Your task to perform on an android device: open chrome privacy settings Image 0: 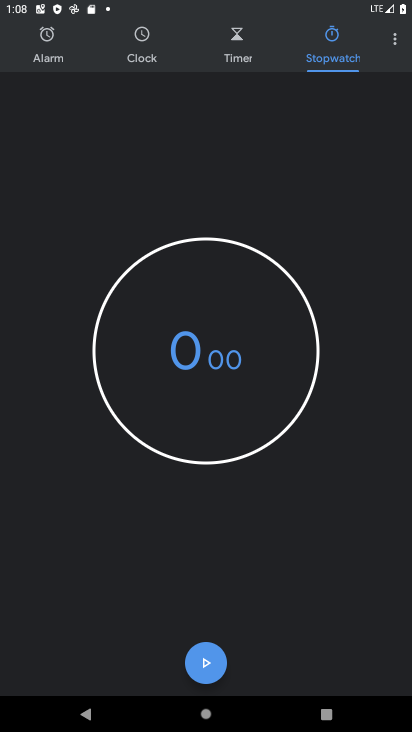
Step 0: press home button
Your task to perform on an android device: open chrome privacy settings Image 1: 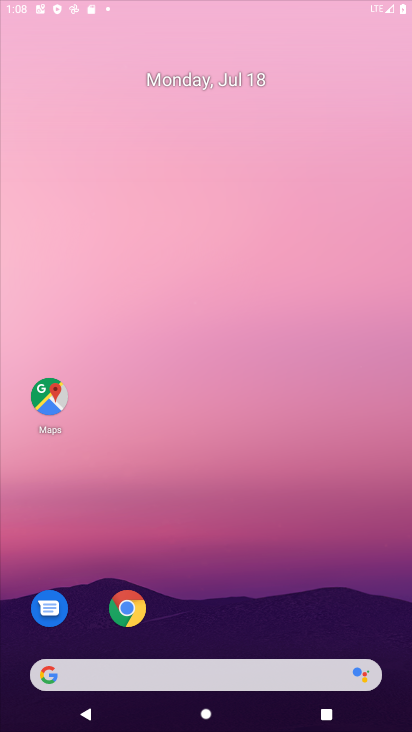
Step 1: drag from (365, 668) to (204, 58)
Your task to perform on an android device: open chrome privacy settings Image 2: 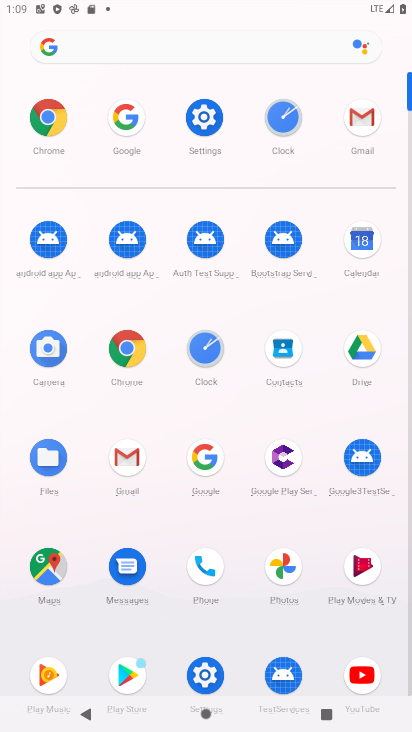
Step 2: click (122, 338)
Your task to perform on an android device: open chrome privacy settings Image 3: 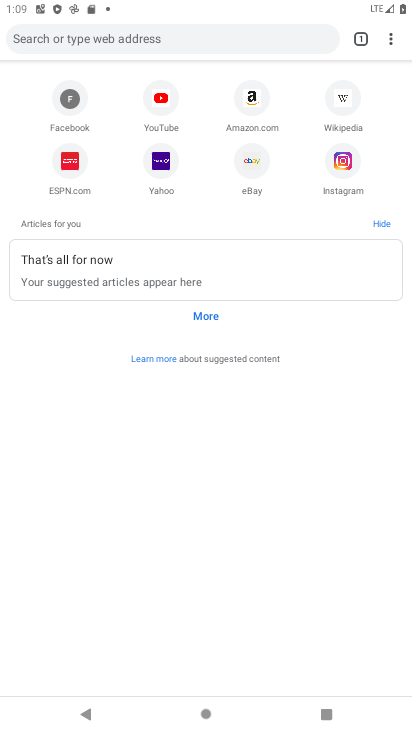
Step 3: click (383, 40)
Your task to perform on an android device: open chrome privacy settings Image 4: 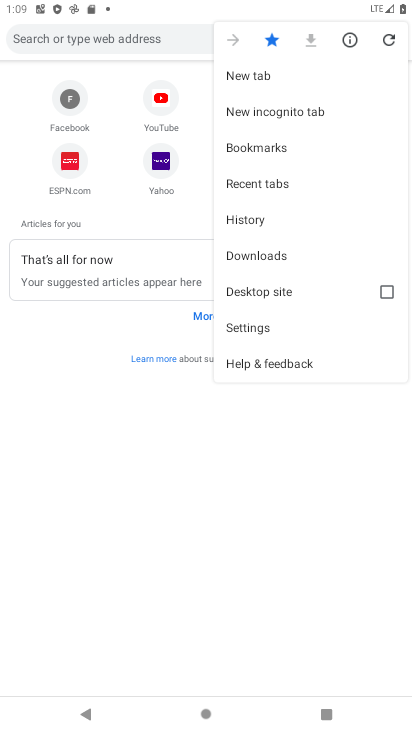
Step 4: click (249, 340)
Your task to perform on an android device: open chrome privacy settings Image 5: 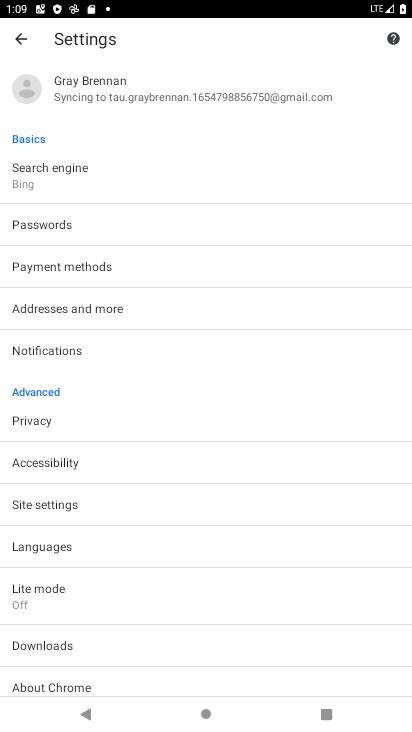
Step 5: click (62, 408)
Your task to perform on an android device: open chrome privacy settings Image 6: 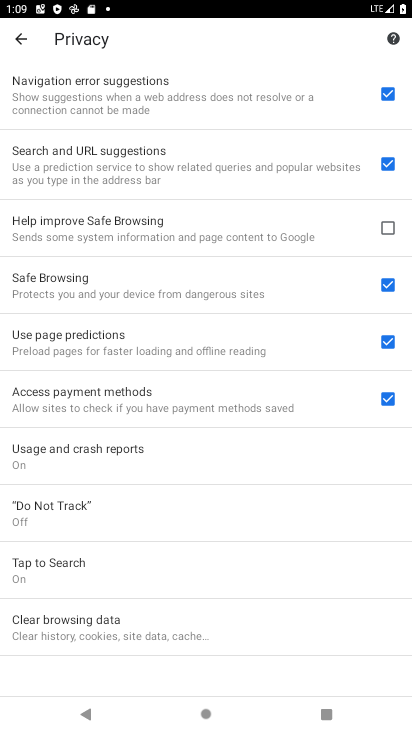
Step 6: task complete